Your task to perform on an android device: Open wifi settings Image 0: 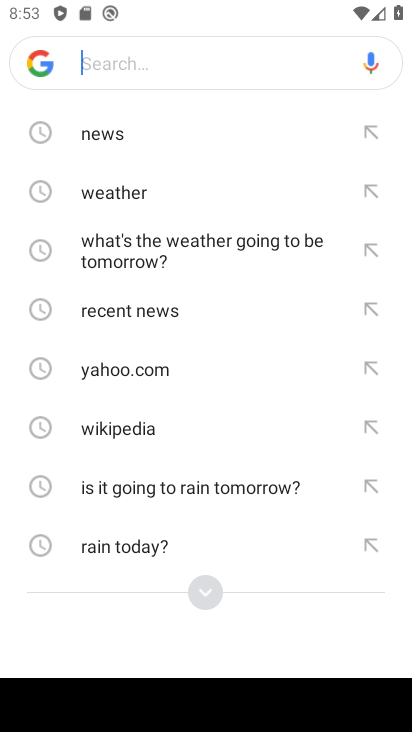
Step 0: press back button
Your task to perform on an android device: Open wifi settings Image 1: 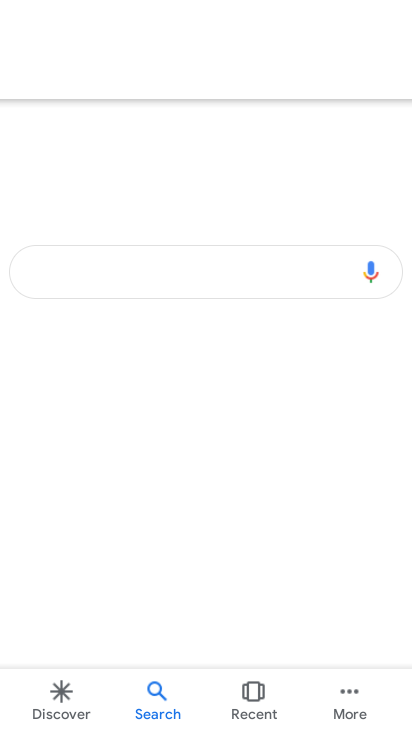
Step 1: drag from (308, 6) to (194, 491)
Your task to perform on an android device: Open wifi settings Image 2: 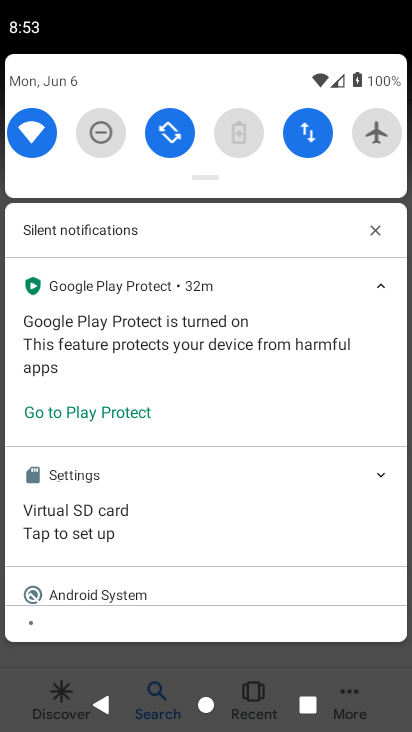
Step 2: drag from (49, 130) to (94, 130)
Your task to perform on an android device: Open wifi settings Image 3: 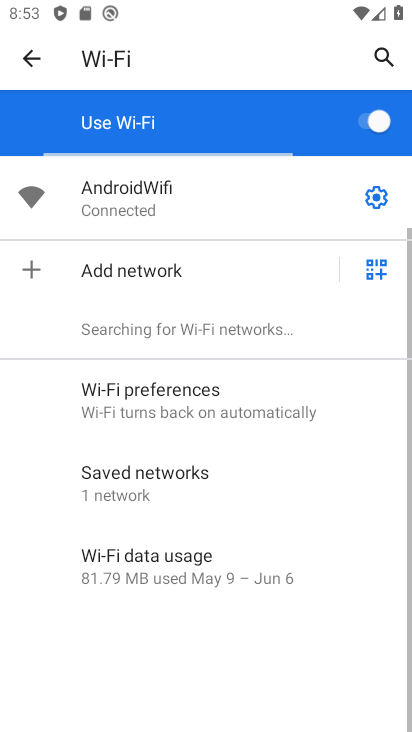
Step 3: click (384, 197)
Your task to perform on an android device: Open wifi settings Image 4: 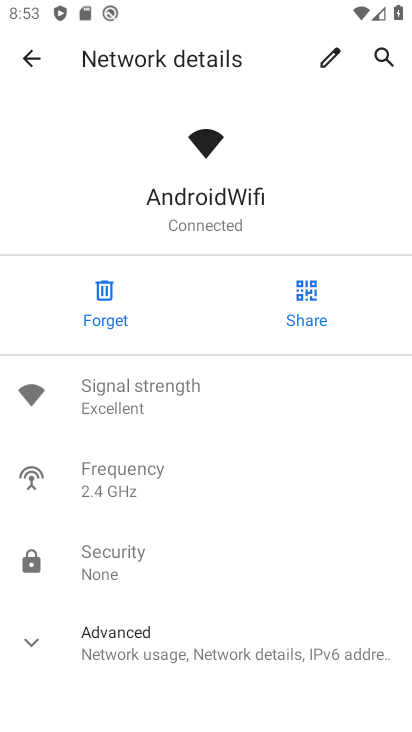
Step 4: task complete